Your task to perform on an android device: remove spam from my inbox in the gmail app Image 0: 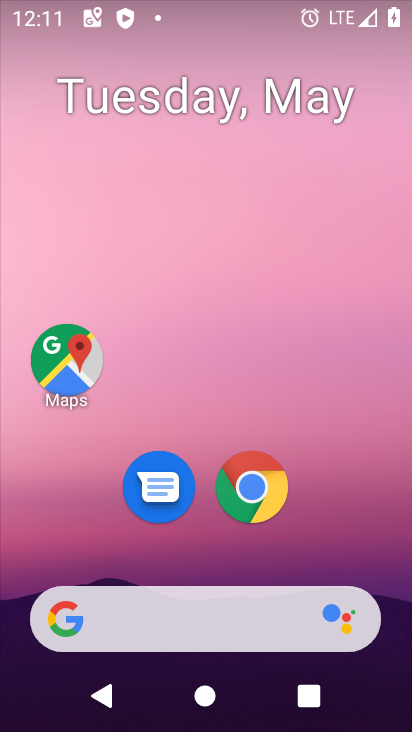
Step 0: drag from (50, 554) to (210, 147)
Your task to perform on an android device: remove spam from my inbox in the gmail app Image 1: 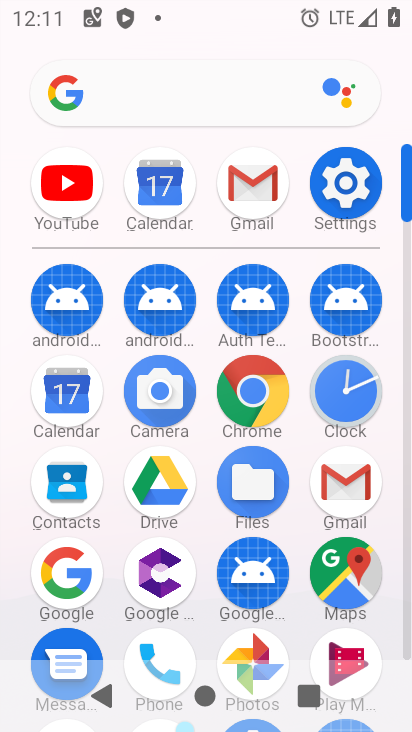
Step 1: click (342, 471)
Your task to perform on an android device: remove spam from my inbox in the gmail app Image 2: 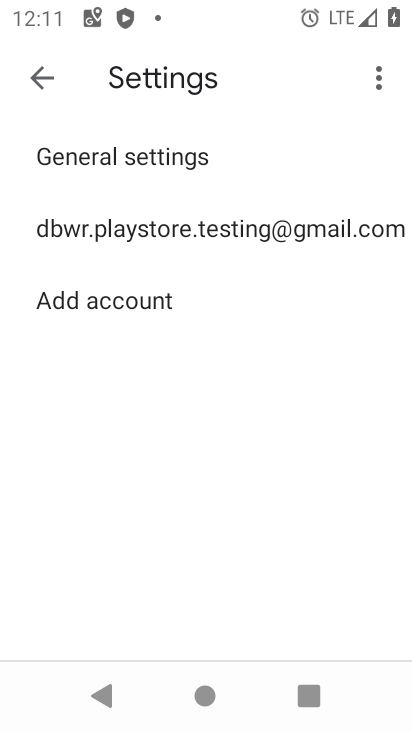
Step 2: click (191, 214)
Your task to perform on an android device: remove spam from my inbox in the gmail app Image 3: 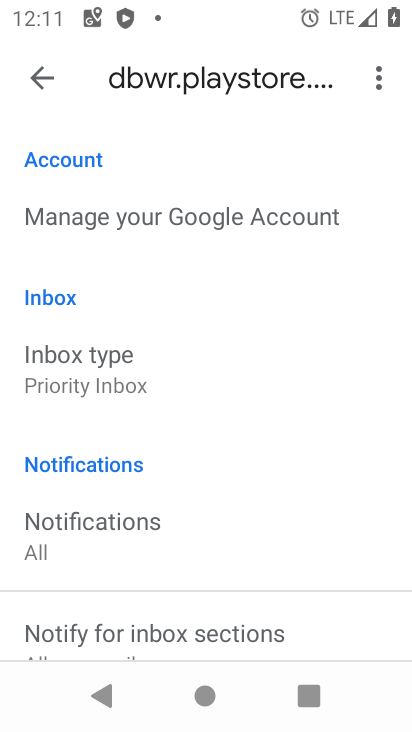
Step 3: click (32, 72)
Your task to perform on an android device: remove spam from my inbox in the gmail app Image 4: 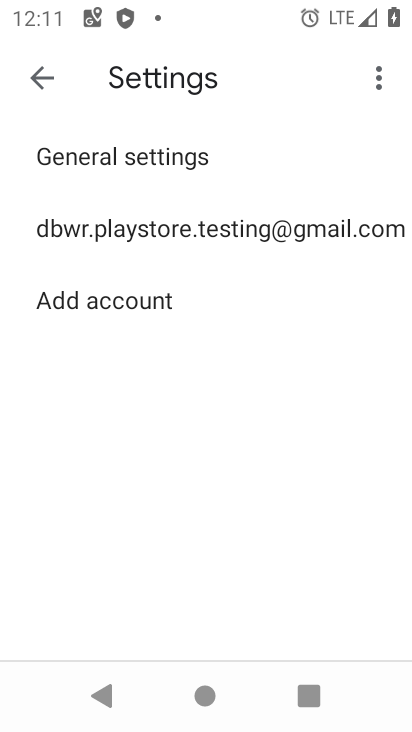
Step 4: click (33, 73)
Your task to perform on an android device: remove spam from my inbox in the gmail app Image 5: 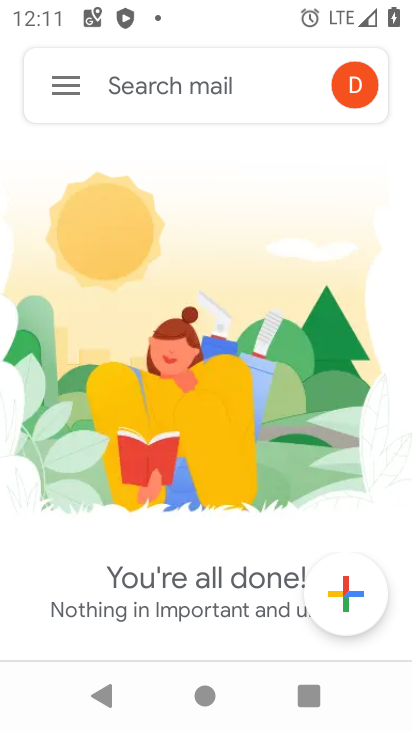
Step 5: click (41, 87)
Your task to perform on an android device: remove spam from my inbox in the gmail app Image 6: 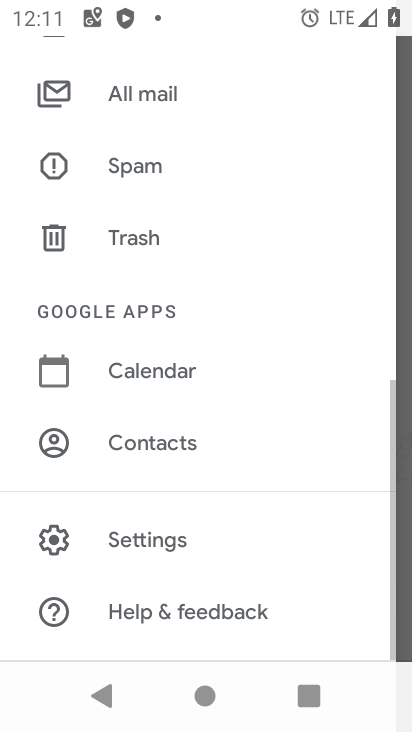
Step 6: click (58, 113)
Your task to perform on an android device: remove spam from my inbox in the gmail app Image 7: 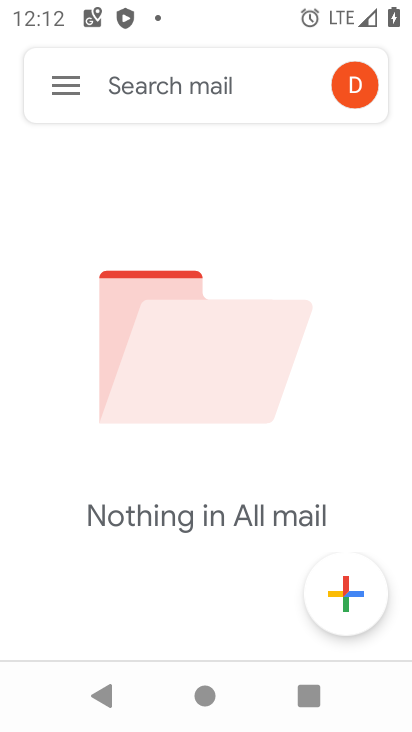
Step 7: task complete